Your task to perform on an android device: snooze an email in the gmail app Image 0: 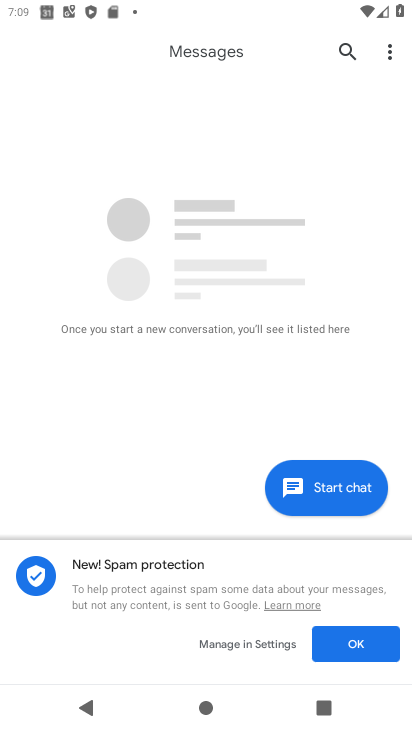
Step 0: press home button
Your task to perform on an android device: snooze an email in the gmail app Image 1: 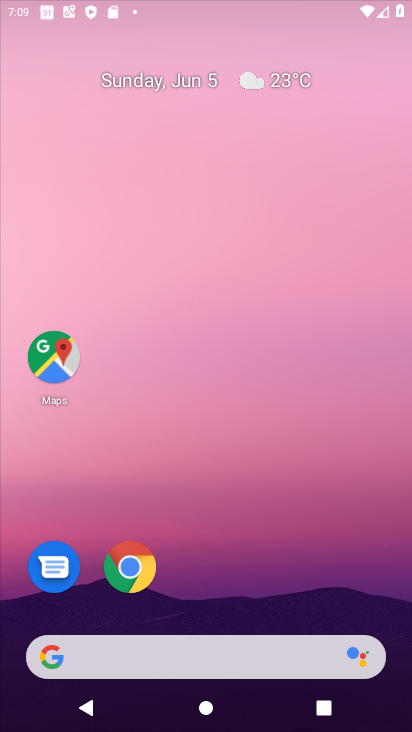
Step 1: drag from (405, 629) to (313, 28)
Your task to perform on an android device: snooze an email in the gmail app Image 2: 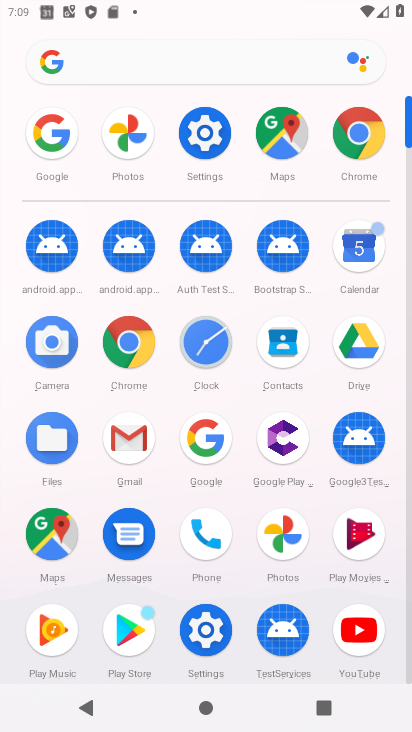
Step 2: click (140, 438)
Your task to perform on an android device: snooze an email in the gmail app Image 3: 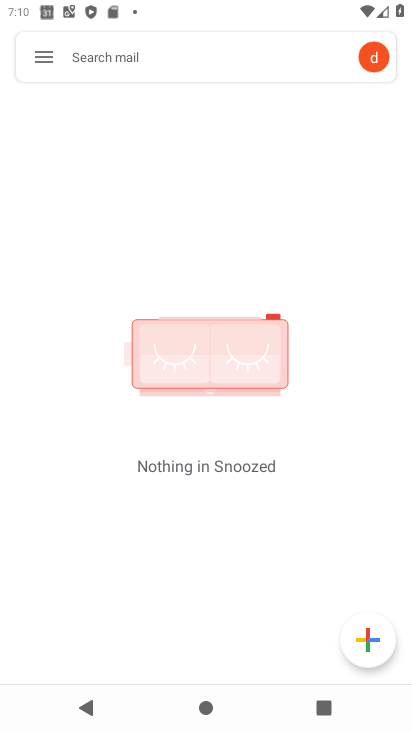
Step 3: click (44, 56)
Your task to perform on an android device: snooze an email in the gmail app Image 4: 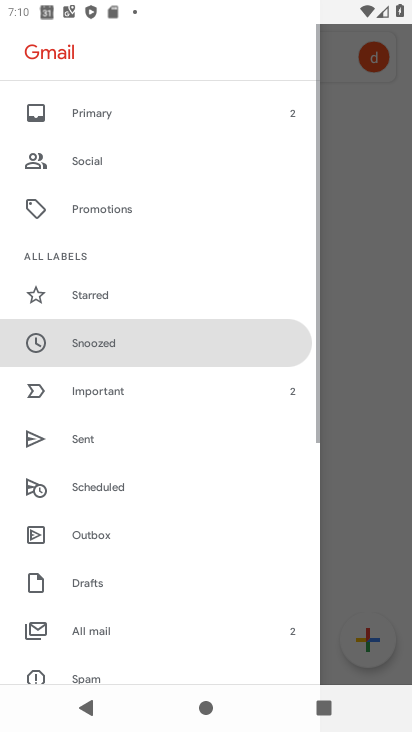
Step 4: drag from (107, 127) to (170, 626)
Your task to perform on an android device: snooze an email in the gmail app Image 5: 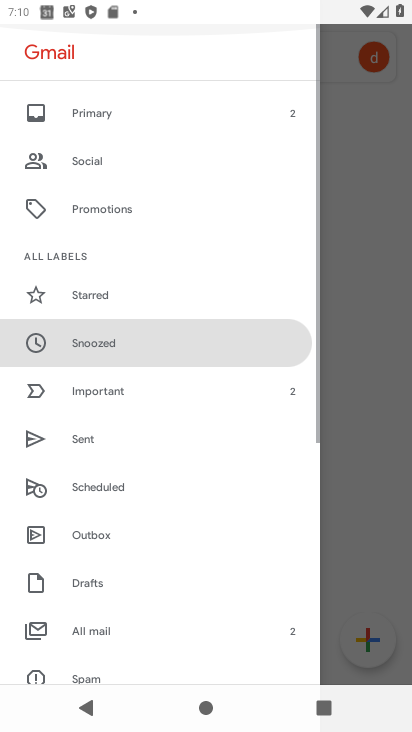
Step 5: click (156, 101)
Your task to perform on an android device: snooze an email in the gmail app Image 6: 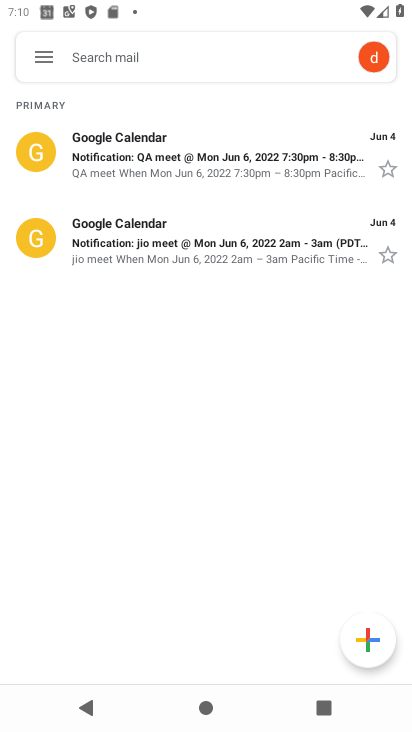
Step 6: click (169, 142)
Your task to perform on an android device: snooze an email in the gmail app Image 7: 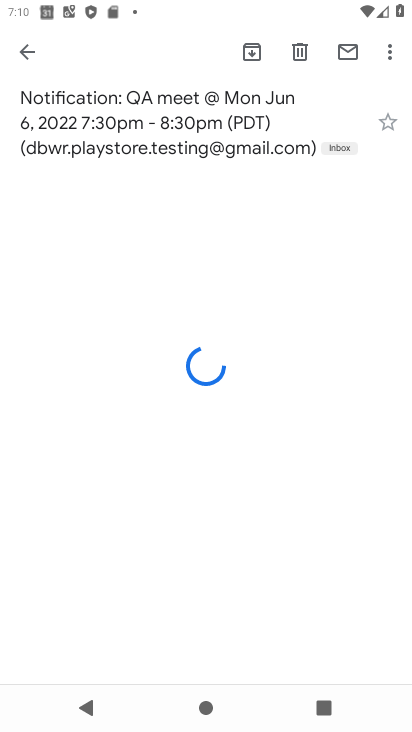
Step 7: click (387, 48)
Your task to perform on an android device: snooze an email in the gmail app Image 8: 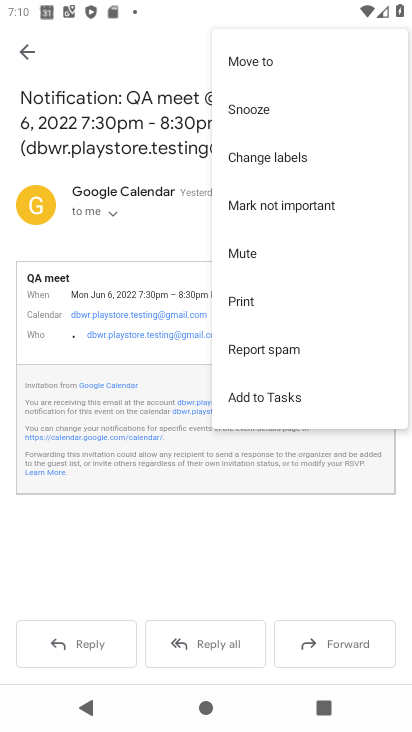
Step 8: click (260, 113)
Your task to perform on an android device: snooze an email in the gmail app Image 9: 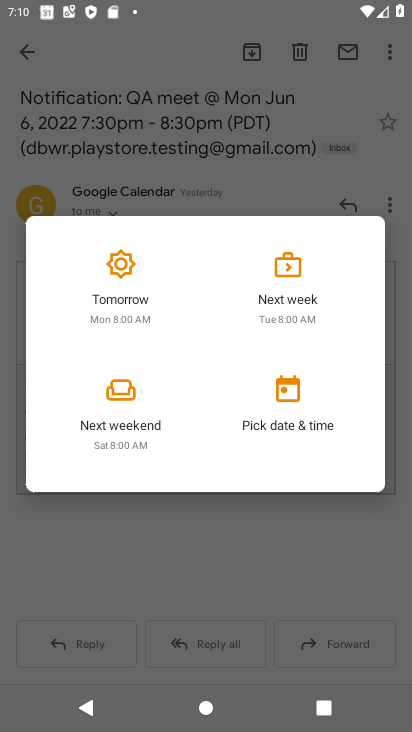
Step 9: click (290, 293)
Your task to perform on an android device: snooze an email in the gmail app Image 10: 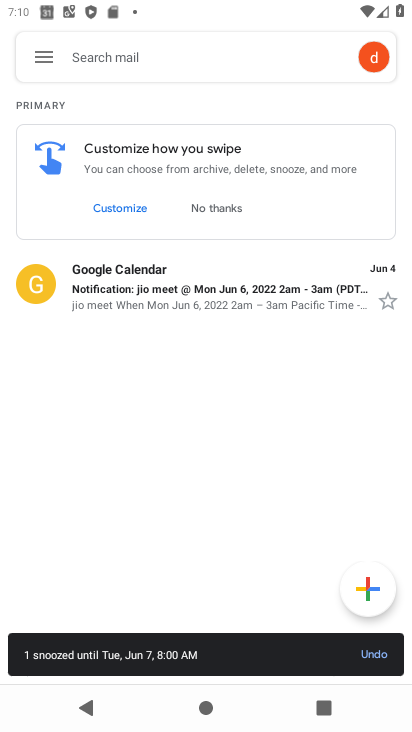
Step 10: task complete